Your task to perform on an android device: Go to location settings Image 0: 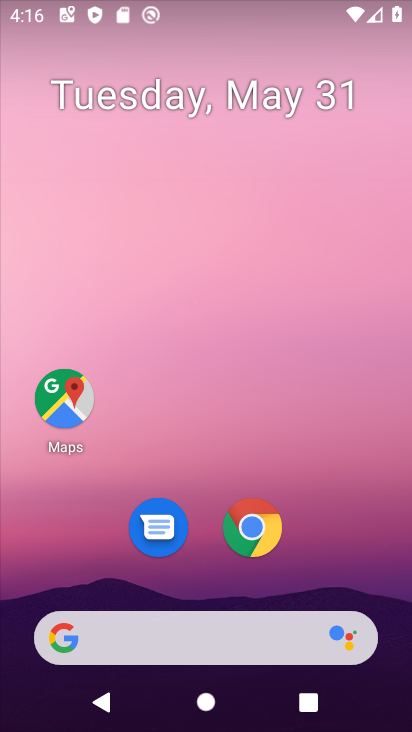
Step 0: drag from (331, 460) to (256, 32)
Your task to perform on an android device: Go to location settings Image 1: 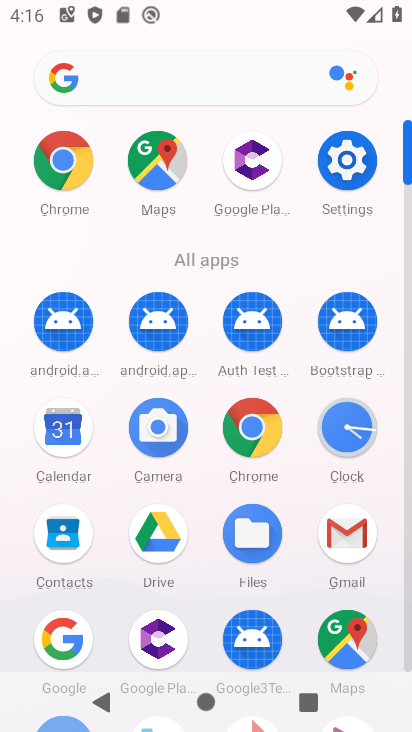
Step 1: drag from (15, 550) to (1, 240)
Your task to perform on an android device: Go to location settings Image 2: 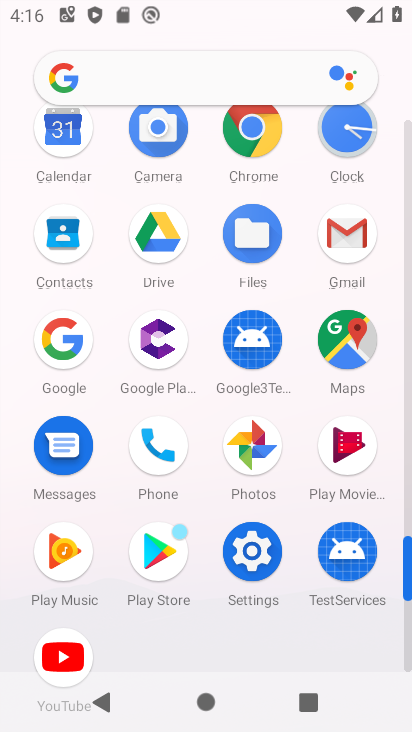
Step 2: click (251, 548)
Your task to perform on an android device: Go to location settings Image 3: 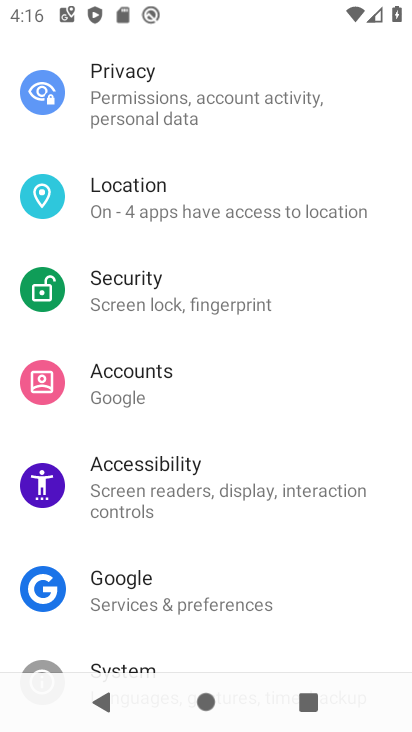
Step 3: click (157, 200)
Your task to perform on an android device: Go to location settings Image 4: 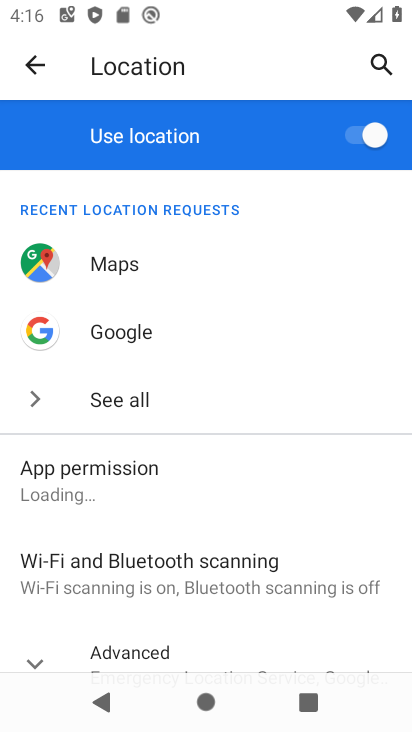
Step 4: drag from (262, 598) to (262, 213)
Your task to perform on an android device: Go to location settings Image 5: 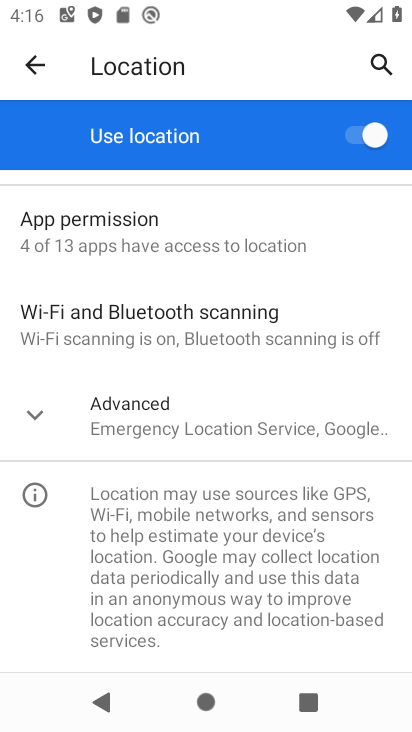
Step 5: click (26, 428)
Your task to perform on an android device: Go to location settings Image 6: 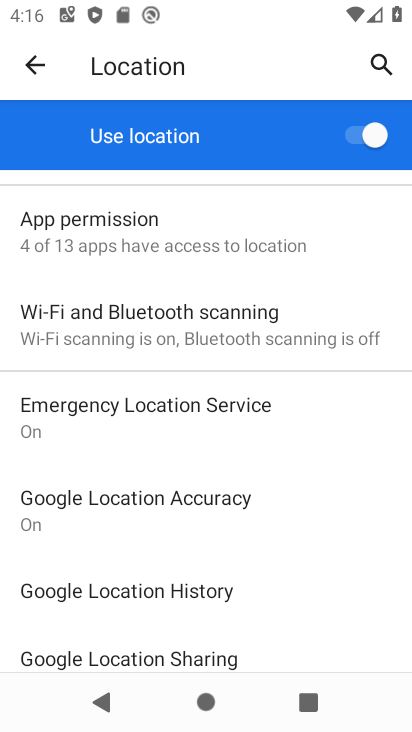
Step 6: task complete